Your task to perform on an android device: set the stopwatch Image 0: 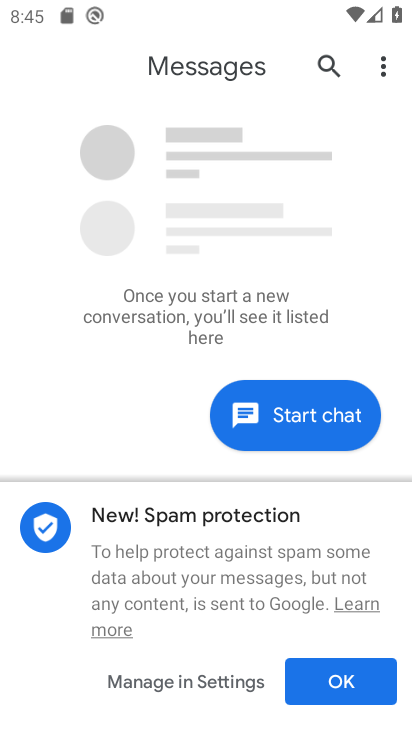
Step 0: press home button
Your task to perform on an android device: set the stopwatch Image 1: 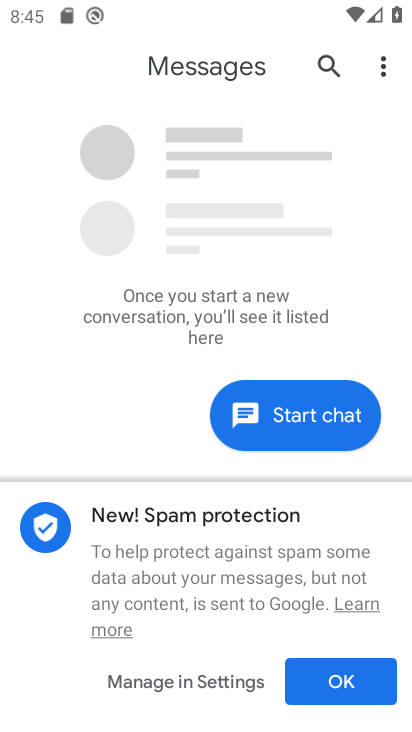
Step 1: press home button
Your task to perform on an android device: set the stopwatch Image 2: 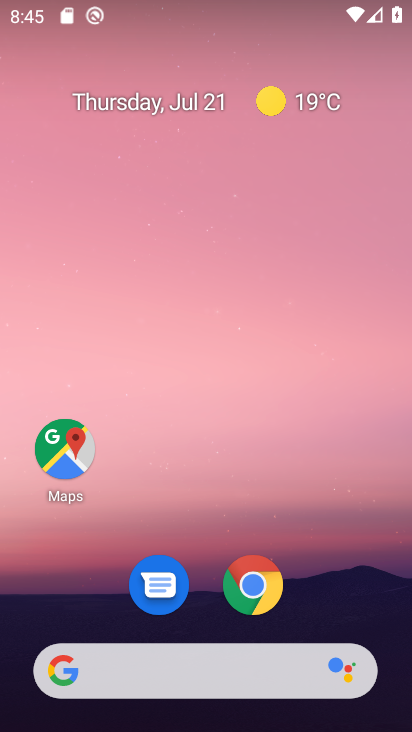
Step 2: drag from (325, 580) to (296, 142)
Your task to perform on an android device: set the stopwatch Image 3: 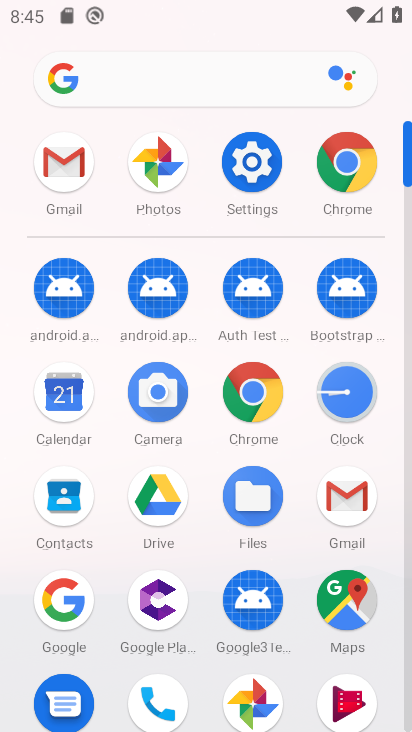
Step 3: click (355, 394)
Your task to perform on an android device: set the stopwatch Image 4: 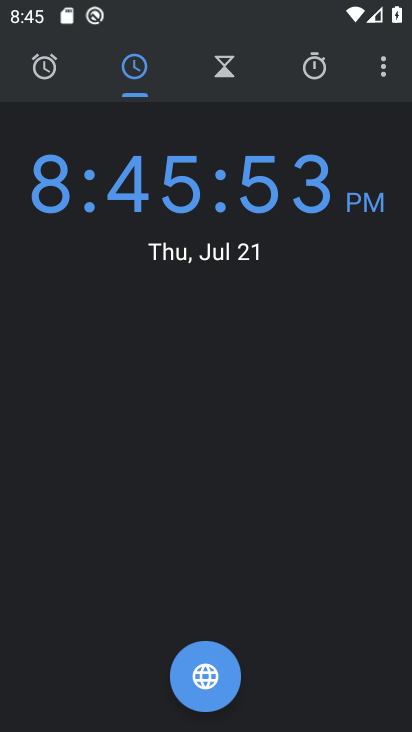
Step 4: click (308, 70)
Your task to perform on an android device: set the stopwatch Image 5: 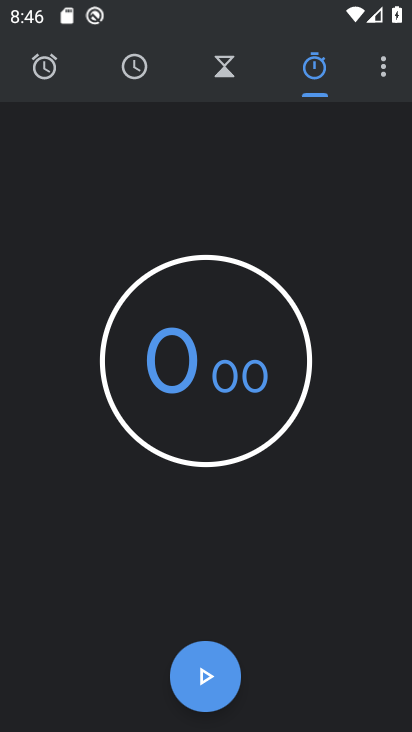
Step 5: task complete